Your task to perform on an android device: Open Google Maps and go to "Timeline" Image 0: 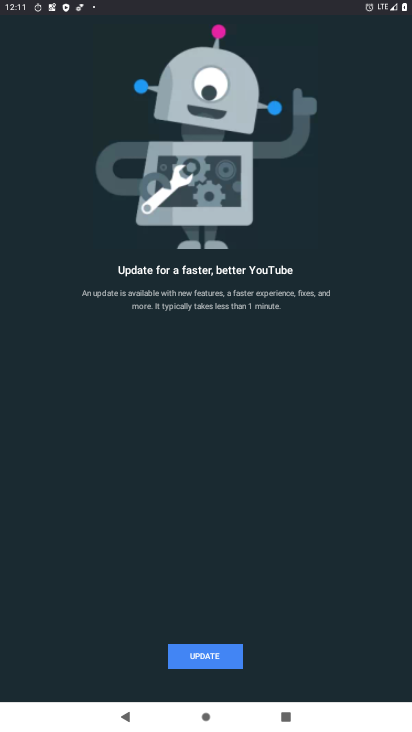
Step 0: press home button
Your task to perform on an android device: Open Google Maps and go to "Timeline" Image 1: 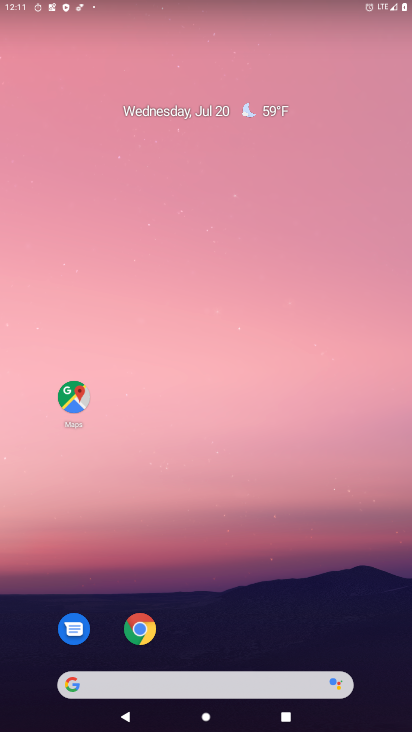
Step 1: drag from (277, 562) to (283, 0)
Your task to perform on an android device: Open Google Maps and go to "Timeline" Image 2: 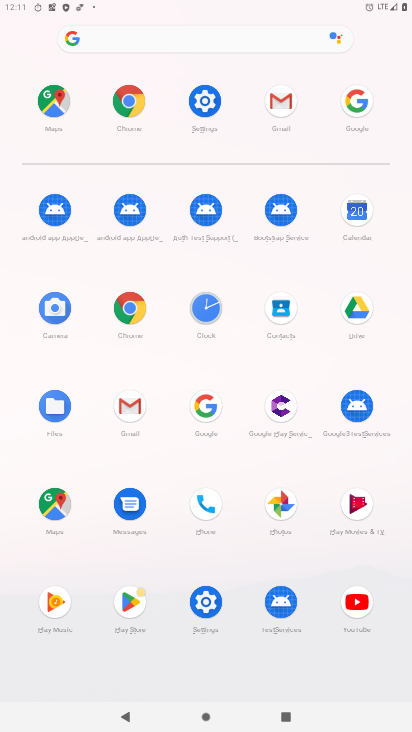
Step 2: click (58, 506)
Your task to perform on an android device: Open Google Maps and go to "Timeline" Image 3: 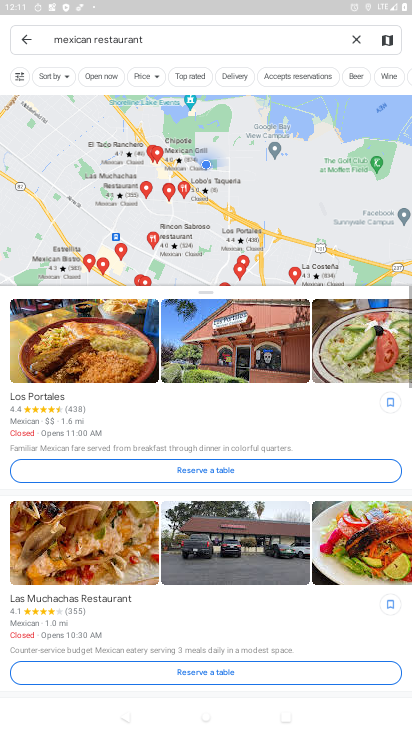
Step 3: click (21, 44)
Your task to perform on an android device: Open Google Maps and go to "Timeline" Image 4: 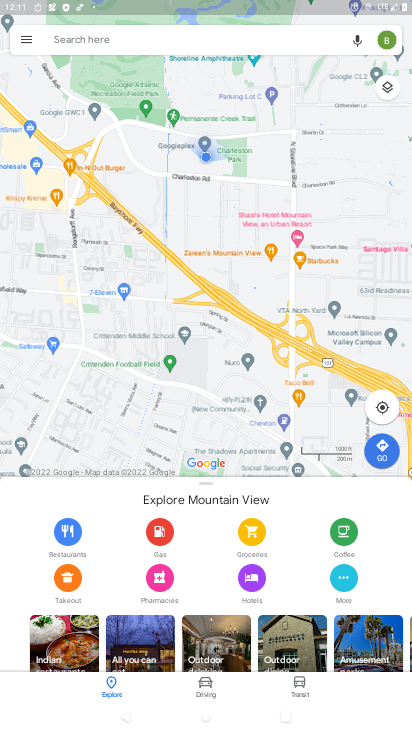
Step 4: click (21, 42)
Your task to perform on an android device: Open Google Maps and go to "Timeline" Image 5: 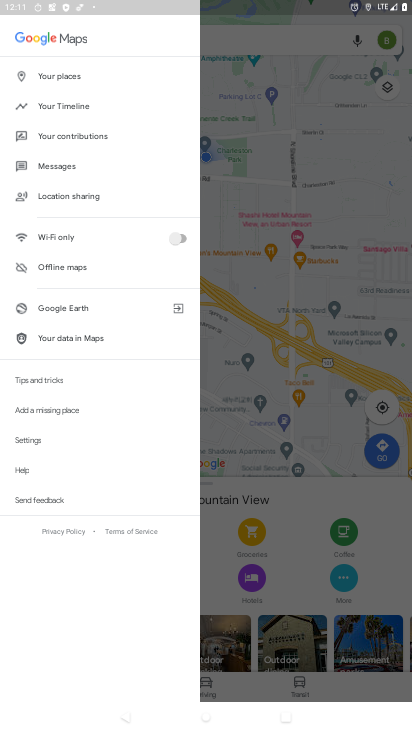
Step 5: click (59, 104)
Your task to perform on an android device: Open Google Maps and go to "Timeline" Image 6: 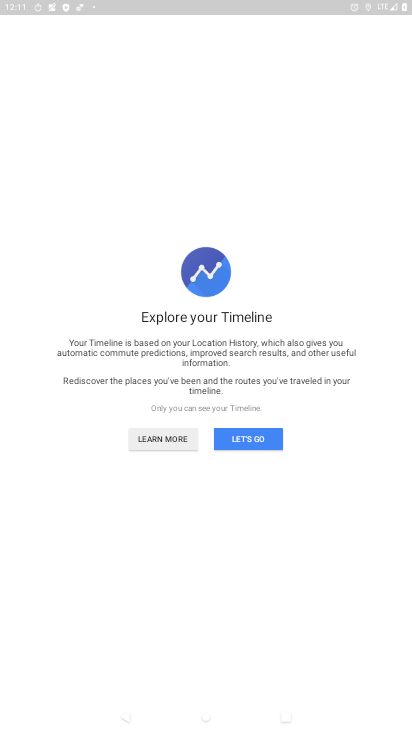
Step 6: click (260, 433)
Your task to perform on an android device: Open Google Maps and go to "Timeline" Image 7: 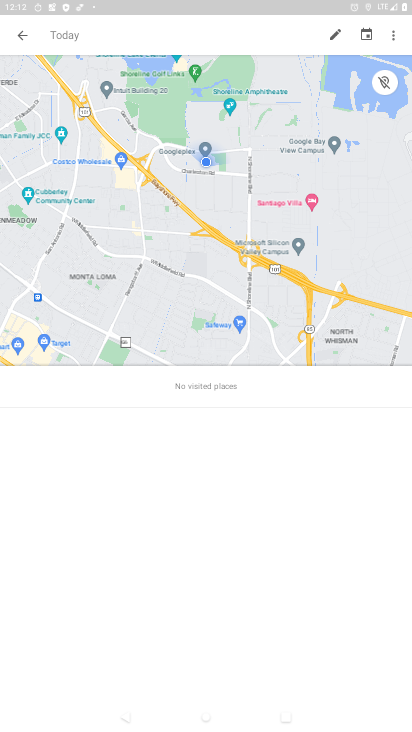
Step 7: task complete